Your task to perform on an android device: turn on sleep mode Image 0: 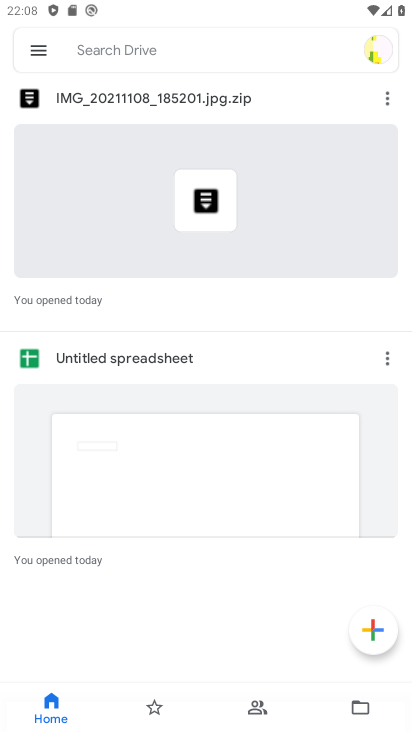
Step 0: press home button
Your task to perform on an android device: turn on sleep mode Image 1: 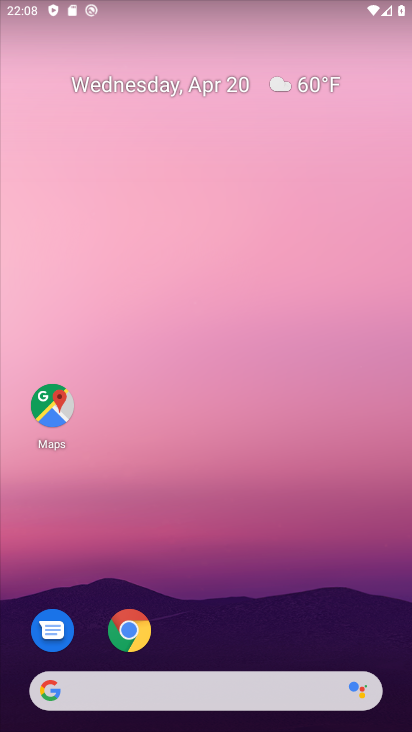
Step 1: drag from (288, 401) to (282, 157)
Your task to perform on an android device: turn on sleep mode Image 2: 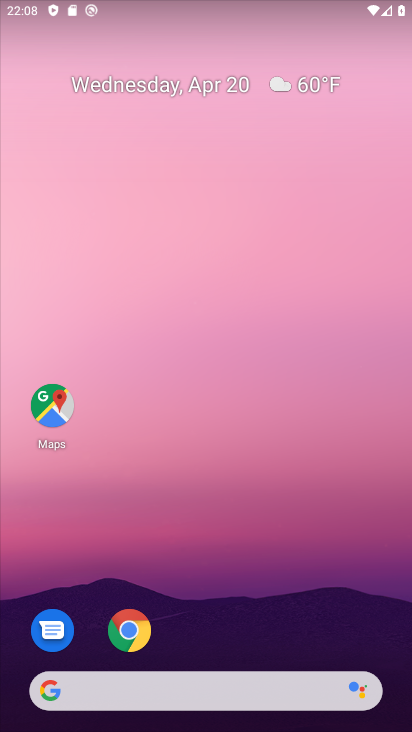
Step 2: drag from (240, 635) to (193, 47)
Your task to perform on an android device: turn on sleep mode Image 3: 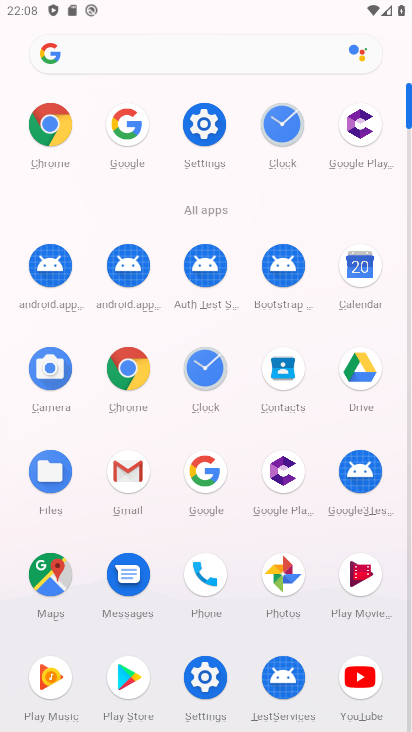
Step 3: click (208, 130)
Your task to perform on an android device: turn on sleep mode Image 4: 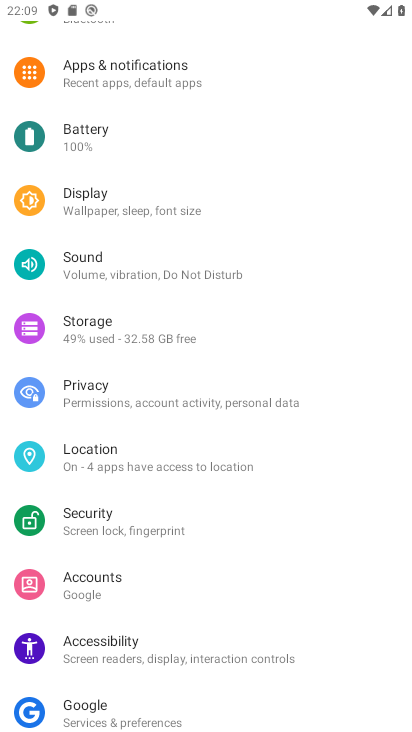
Step 4: drag from (224, 149) to (255, 267)
Your task to perform on an android device: turn on sleep mode Image 5: 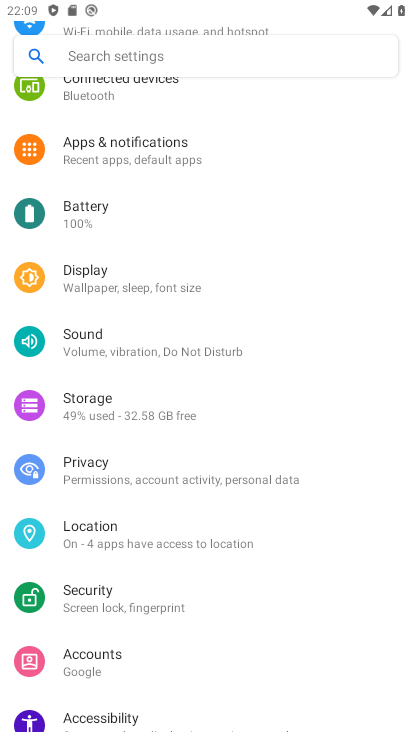
Step 5: click (186, 276)
Your task to perform on an android device: turn on sleep mode Image 6: 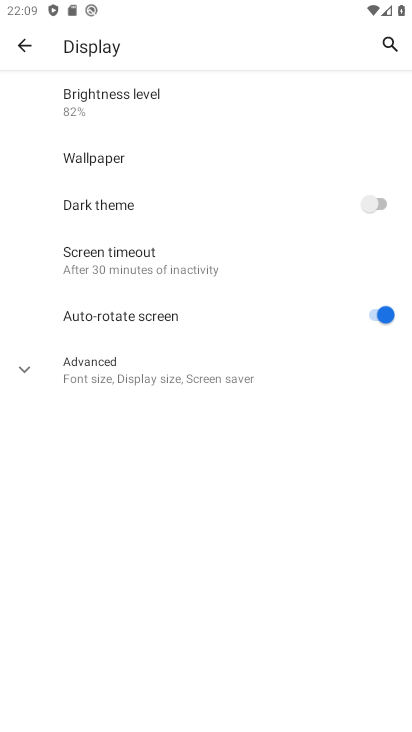
Step 6: click (159, 251)
Your task to perform on an android device: turn on sleep mode Image 7: 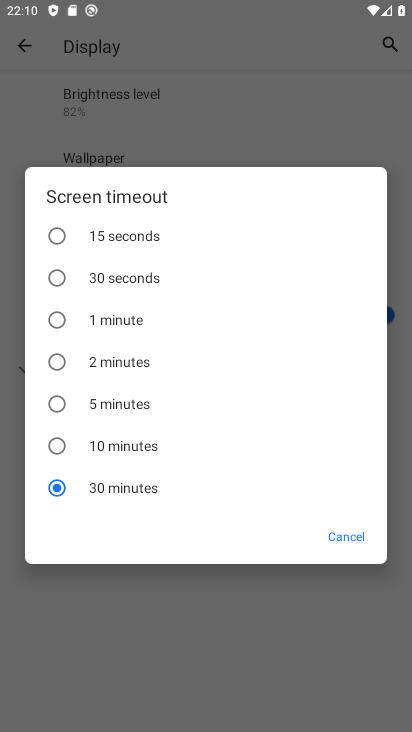
Step 7: task complete